Your task to perform on an android device: open the mobile data screen to see how much data has been used Image 0: 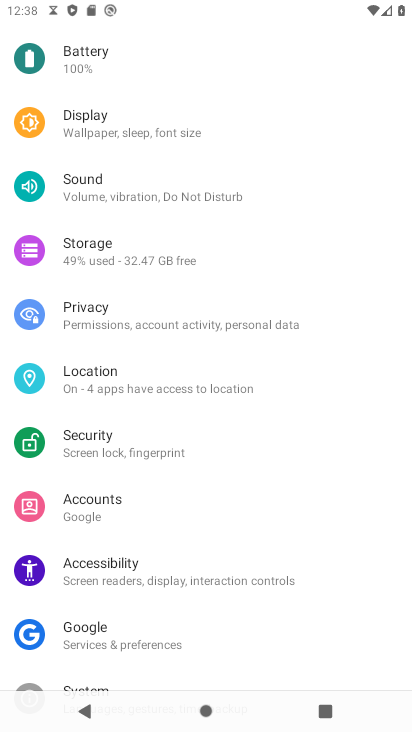
Step 0: press home button
Your task to perform on an android device: open the mobile data screen to see how much data has been used Image 1: 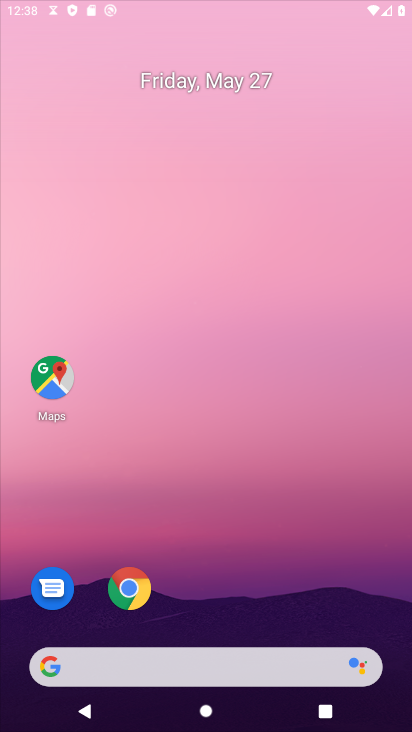
Step 1: press home button
Your task to perform on an android device: open the mobile data screen to see how much data has been used Image 2: 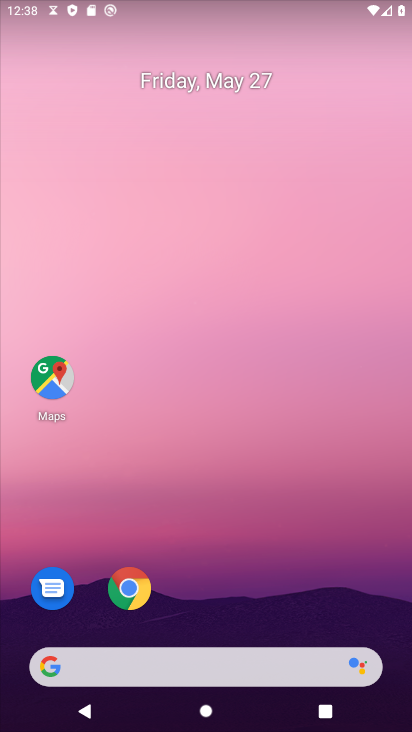
Step 2: drag from (224, 386) to (232, 13)
Your task to perform on an android device: open the mobile data screen to see how much data has been used Image 3: 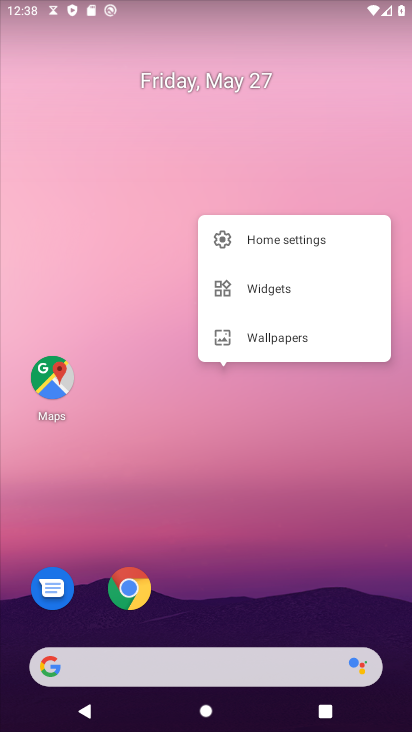
Step 3: click (176, 462)
Your task to perform on an android device: open the mobile data screen to see how much data has been used Image 4: 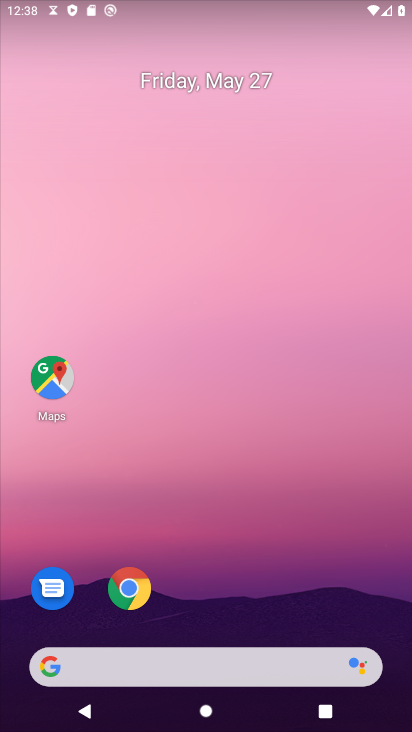
Step 4: drag from (202, 565) to (221, 85)
Your task to perform on an android device: open the mobile data screen to see how much data has been used Image 5: 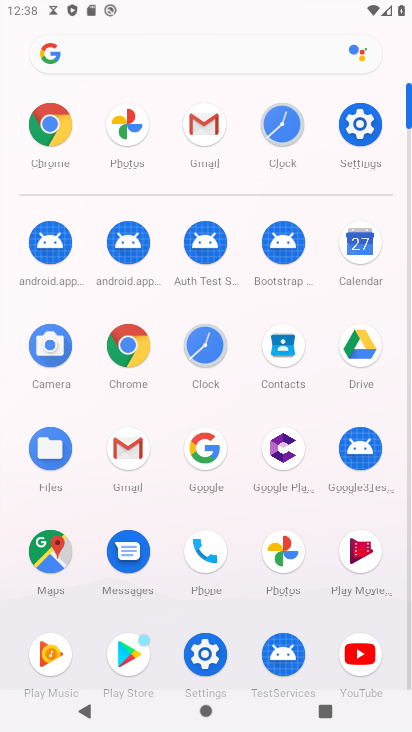
Step 5: click (358, 123)
Your task to perform on an android device: open the mobile data screen to see how much data has been used Image 6: 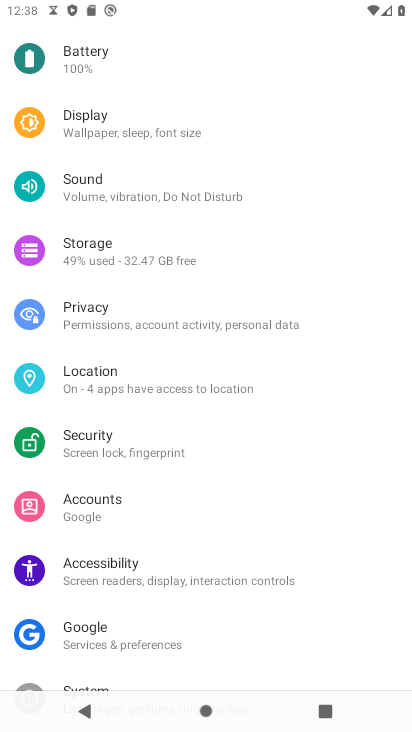
Step 6: drag from (126, 120) to (171, 609)
Your task to perform on an android device: open the mobile data screen to see how much data has been used Image 7: 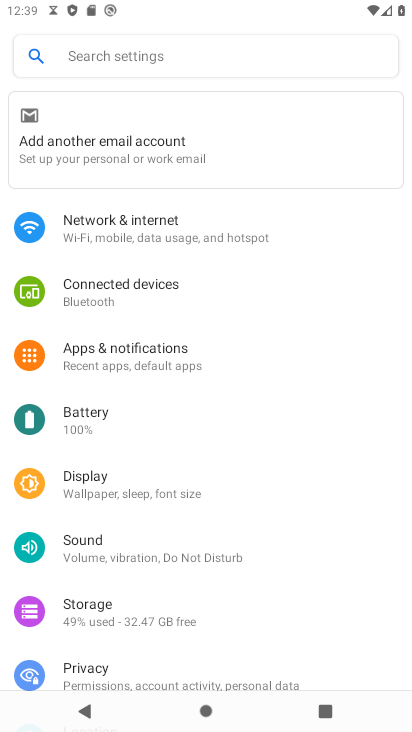
Step 7: click (188, 228)
Your task to perform on an android device: open the mobile data screen to see how much data has been used Image 8: 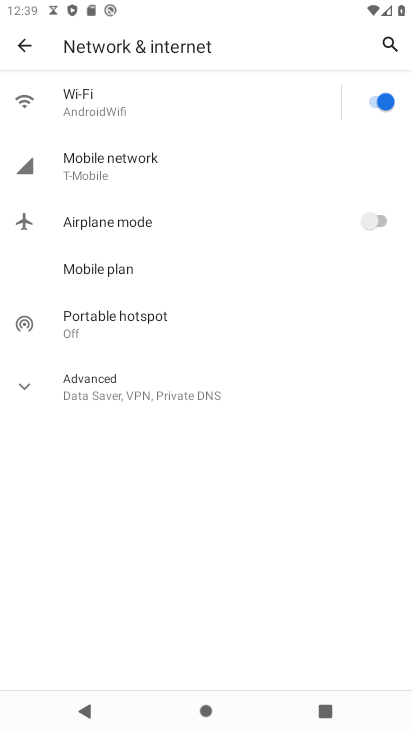
Step 8: click (157, 165)
Your task to perform on an android device: open the mobile data screen to see how much data has been used Image 9: 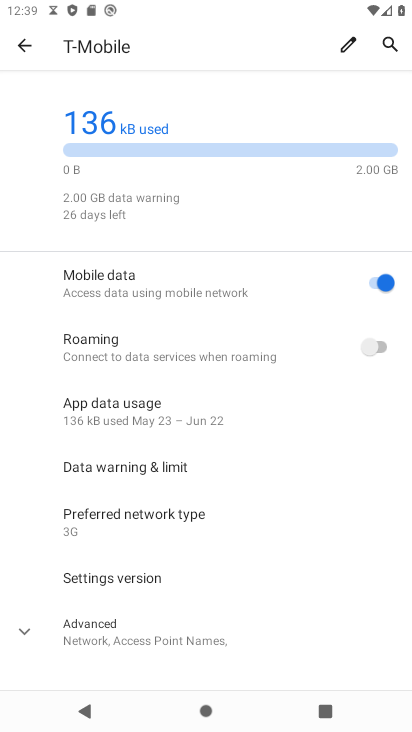
Step 9: click (194, 406)
Your task to perform on an android device: open the mobile data screen to see how much data has been used Image 10: 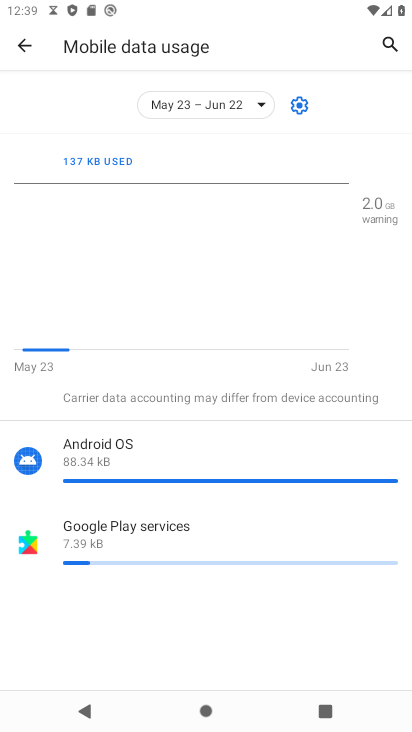
Step 10: task complete